Your task to perform on an android device: star an email in the gmail app Image 0: 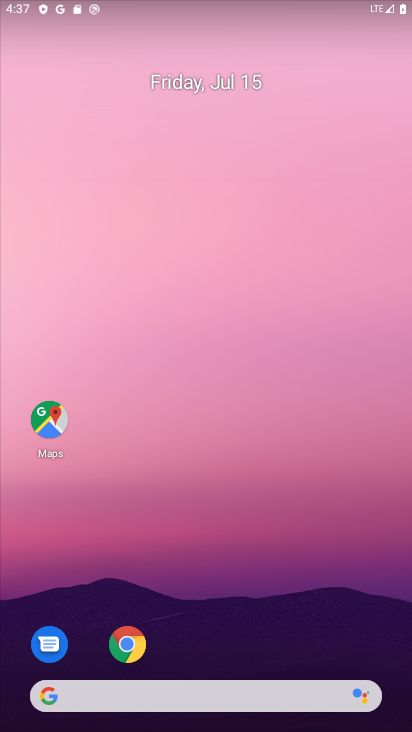
Step 0: drag from (183, 636) to (165, 328)
Your task to perform on an android device: star an email in the gmail app Image 1: 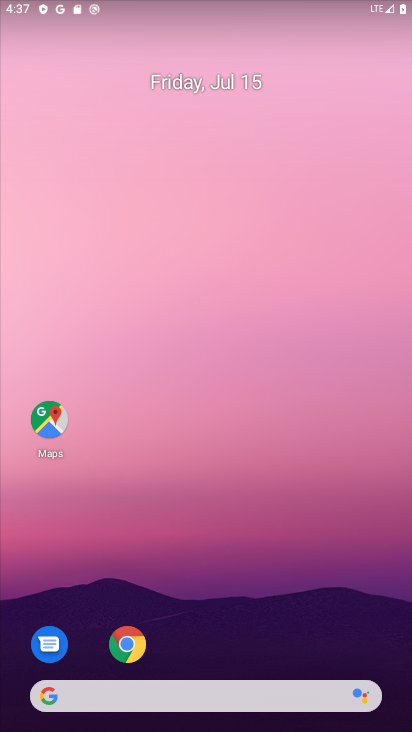
Step 1: drag from (226, 650) to (171, 184)
Your task to perform on an android device: star an email in the gmail app Image 2: 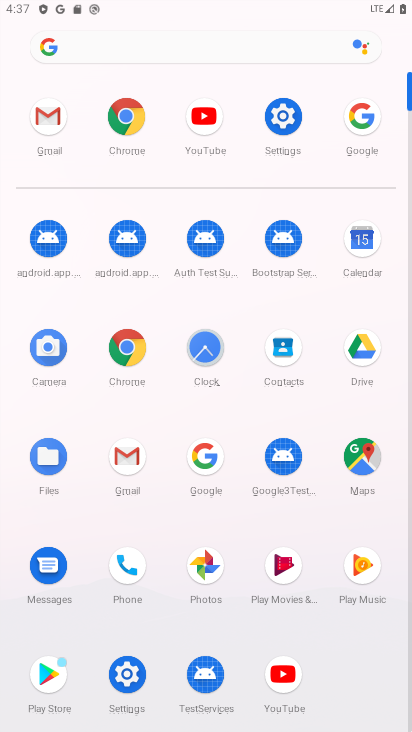
Step 2: click (140, 455)
Your task to perform on an android device: star an email in the gmail app Image 3: 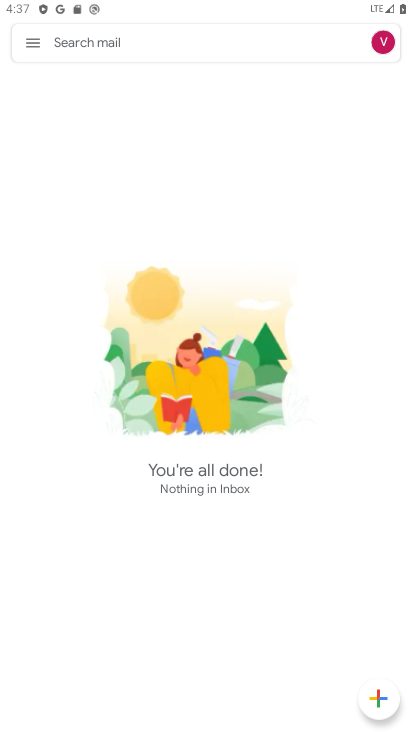
Step 3: task complete